Your task to perform on an android device: open a new tab in the chrome app Image 0: 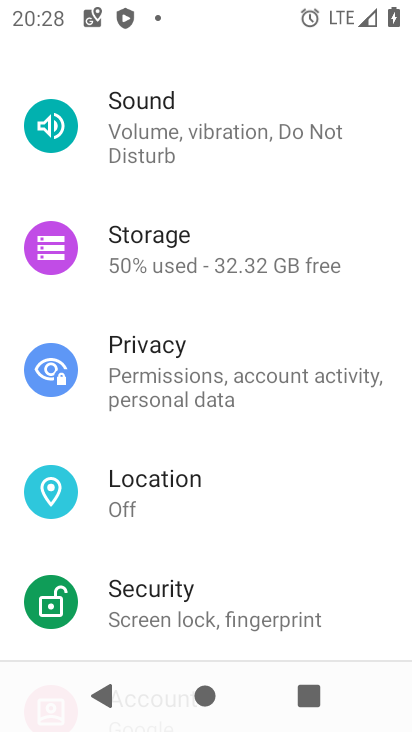
Step 0: press home button
Your task to perform on an android device: open a new tab in the chrome app Image 1: 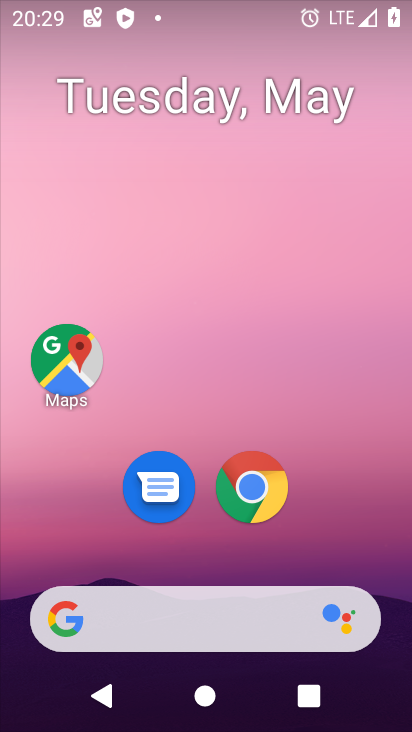
Step 1: click (255, 481)
Your task to perform on an android device: open a new tab in the chrome app Image 2: 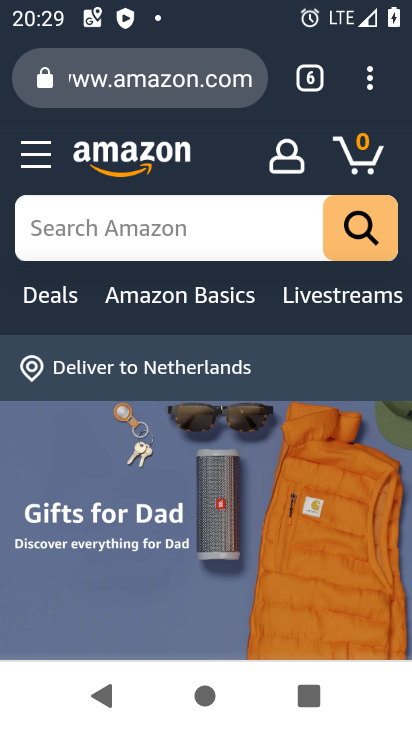
Step 2: click (373, 75)
Your task to perform on an android device: open a new tab in the chrome app Image 3: 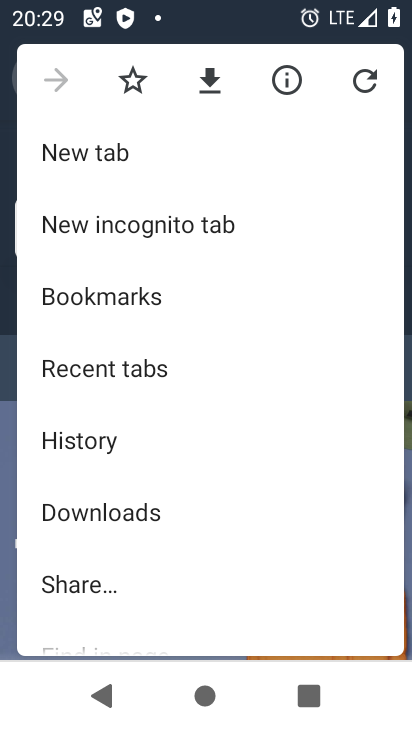
Step 3: click (108, 149)
Your task to perform on an android device: open a new tab in the chrome app Image 4: 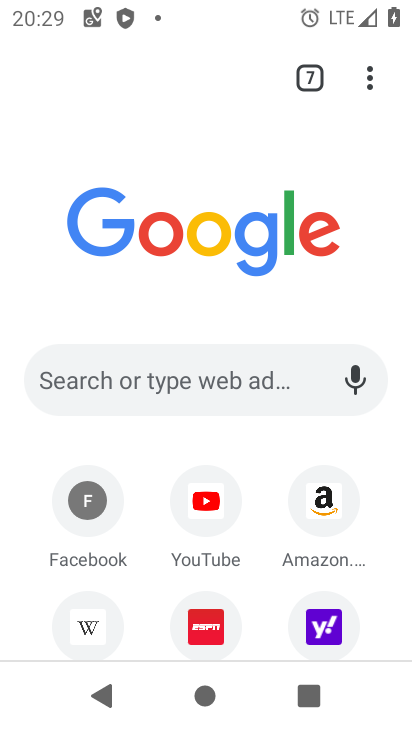
Step 4: task complete